Your task to perform on an android device: read, delete, or share a saved page in the chrome app Image 0: 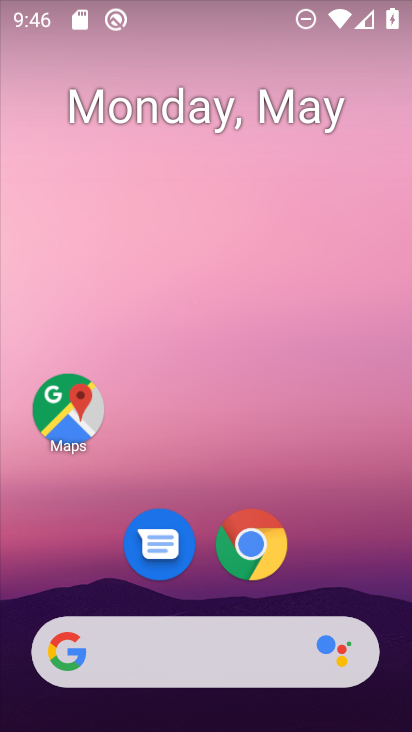
Step 0: drag from (356, 555) to (292, 143)
Your task to perform on an android device: read, delete, or share a saved page in the chrome app Image 1: 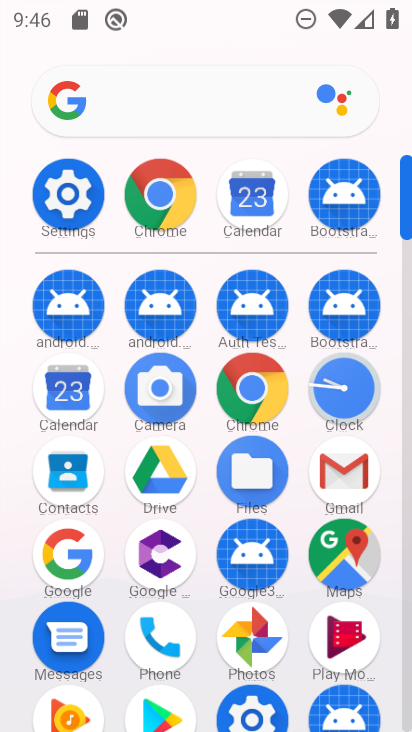
Step 1: click (267, 406)
Your task to perform on an android device: read, delete, or share a saved page in the chrome app Image 2: 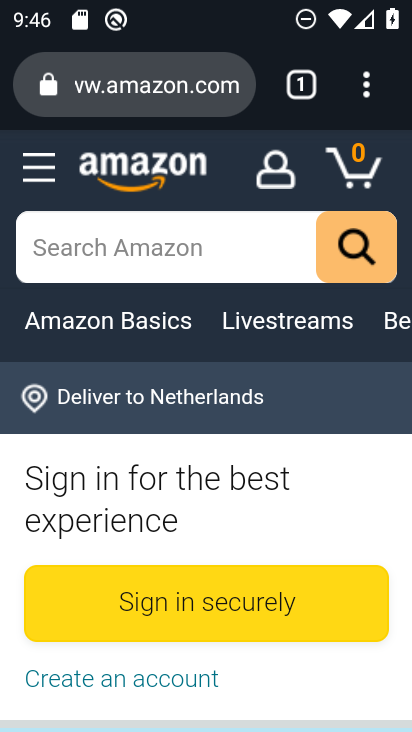
Step 2: drag from (373, 104) to (169, 319)
Your task to perform on an android device: read, delete, or share a saved page in the chrome app Image 3: 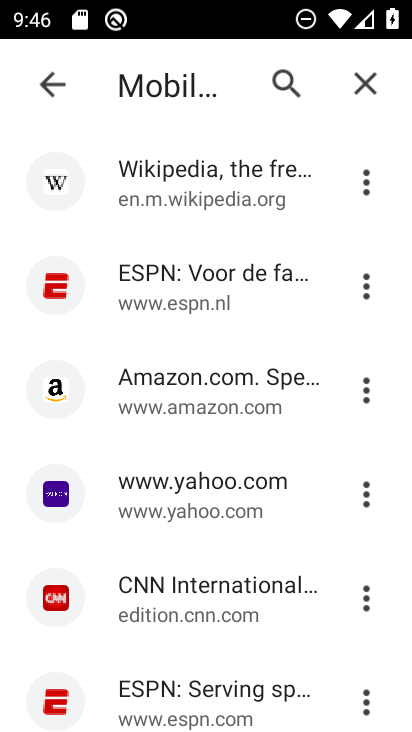
Step 3: click (364, 177)
Your task to perform on an android device: read, delete, or share a saved page in the chrome app Image 4: 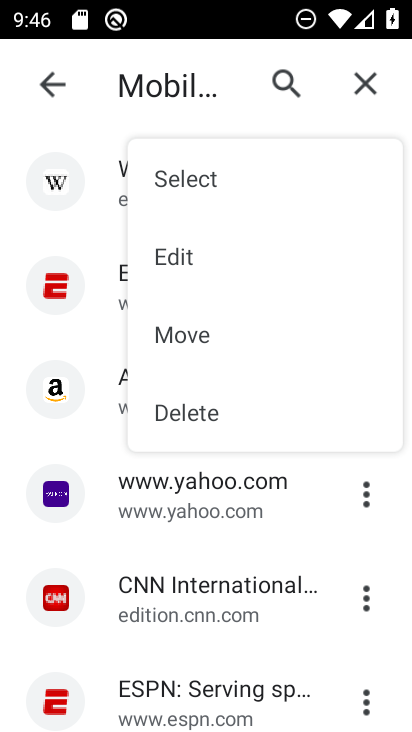
Step 4: click (234, 419)
Your task to perform on an android device: read, delete, or share a saved page in the chrome app Image 5: 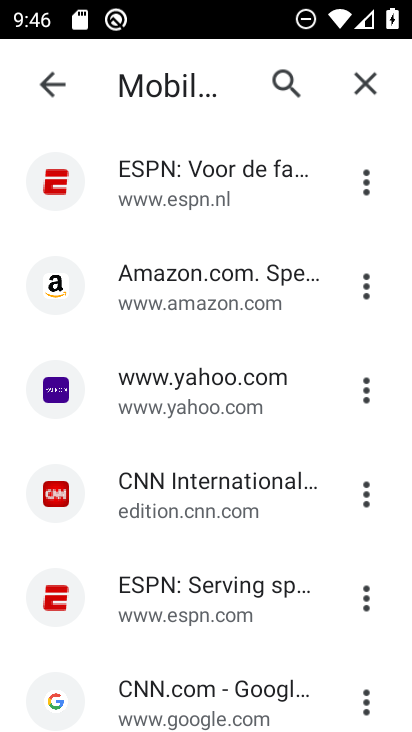
Step 5: task complete